Your task to perform on an android device: Show me recent news Image 0: 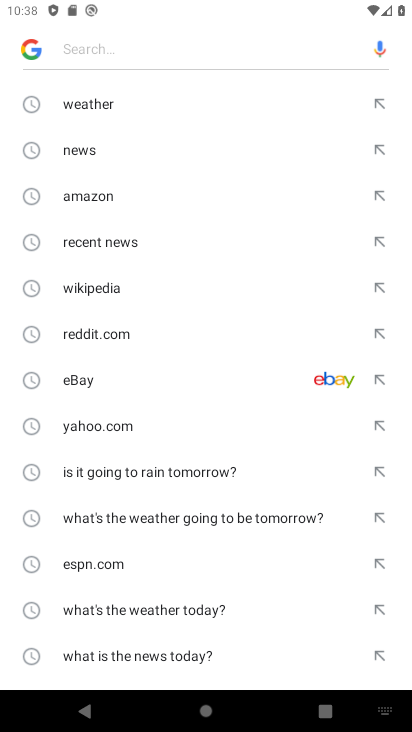
Step 0: click (93, 245)
Your task to perform on an android device: Show me recent news Image 1: 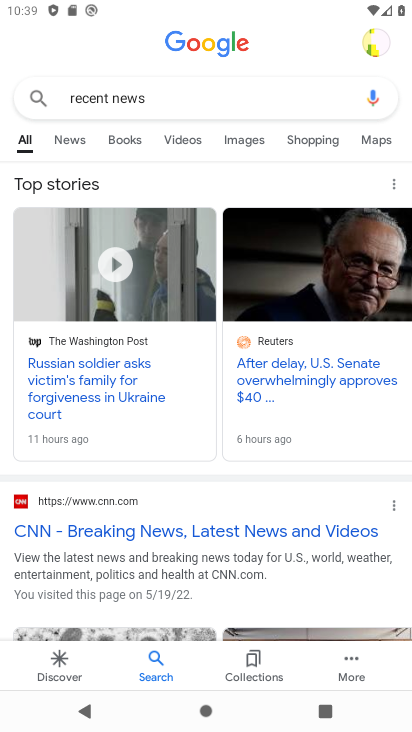
Step 1: task complete